Your task to perform on an android device: Open the stopwatch Image 0: 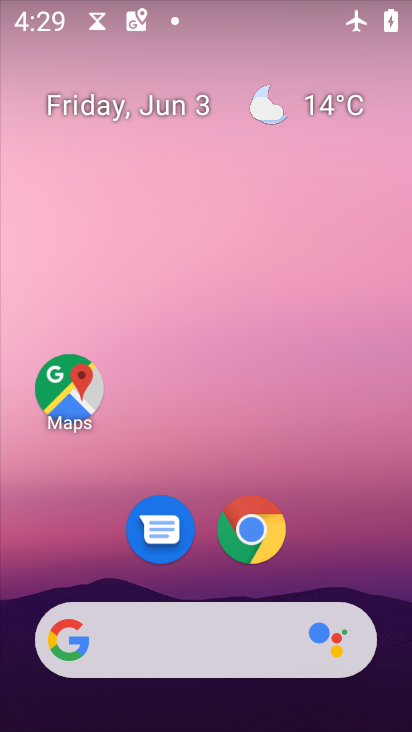
Step 0: click (410, 65)
Your task to perform on an android device: Open the stopwatch Image 1: 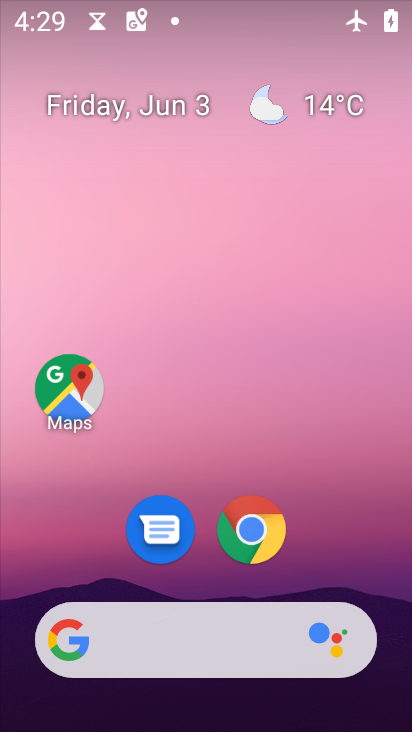
Step 1: drag from (333, 535) to (268, 32)
Your task to perform on an android device: Open the stopwatch Image 2: 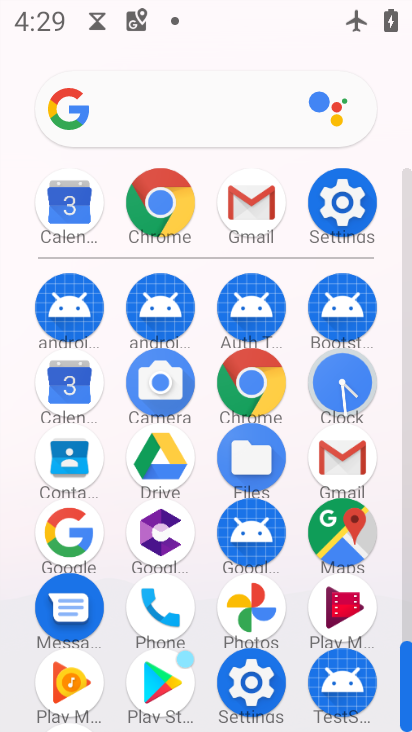
Step 2: click (333, 374)
Your task to perform on an android device: Open the stopwatch Image 3: 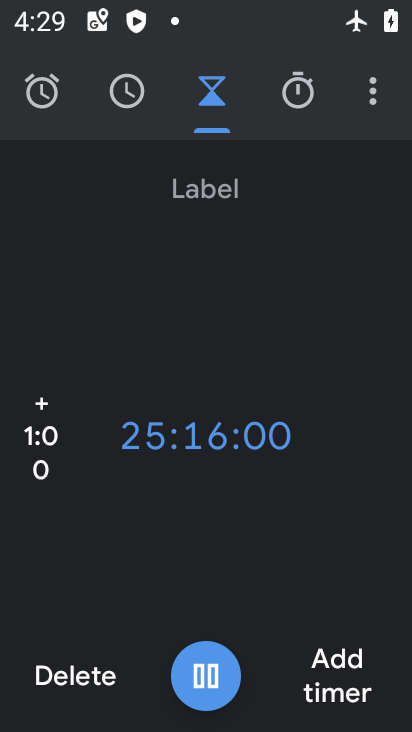
Step 3: click (309, 100)
Your task to perform on an android device: Open the stopwatch Image 4: 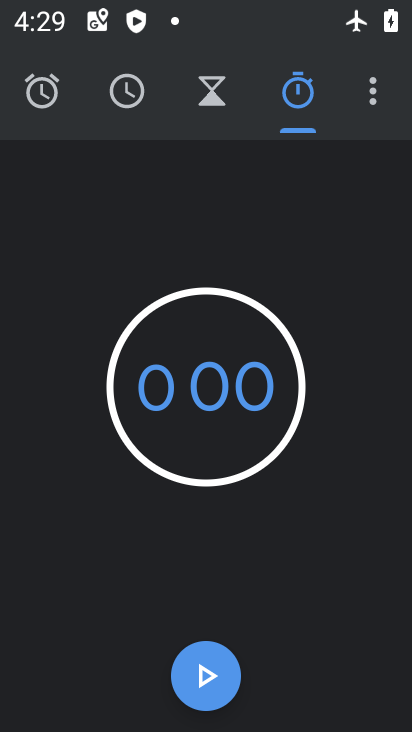
Step 4: task complete